Your task to perform on an android device: turn on notifications settings in the gmail app Image 0: 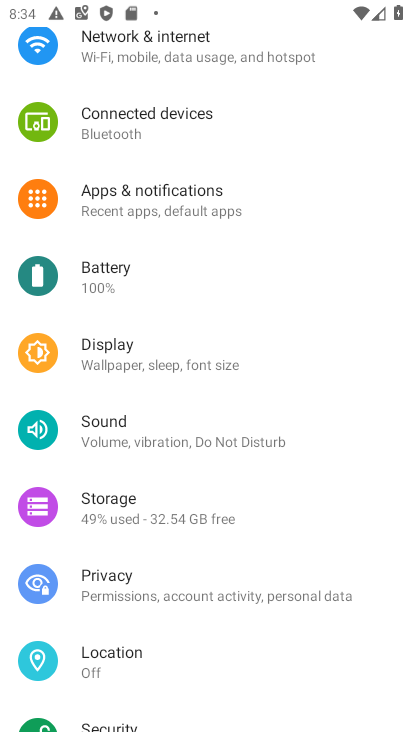
Step 0: drag from (173, 172) to (220, 498)
Your task to perform on an android device: turn on notifications settings in the gmail app Image 1: 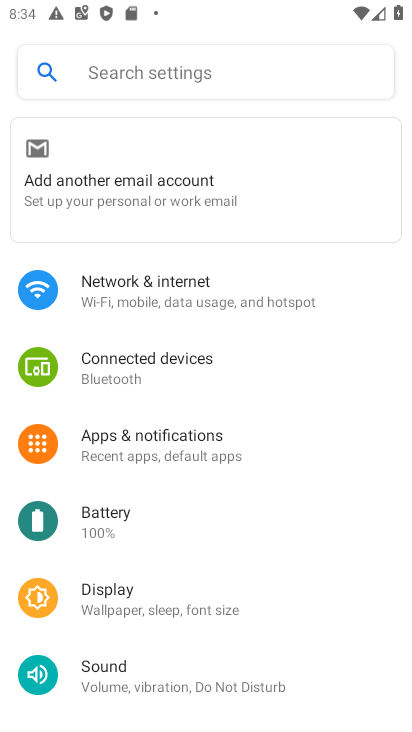
Step 1: press home button
Your task to perform on an android device: turn on notifications settings in the gmail app Image 2: 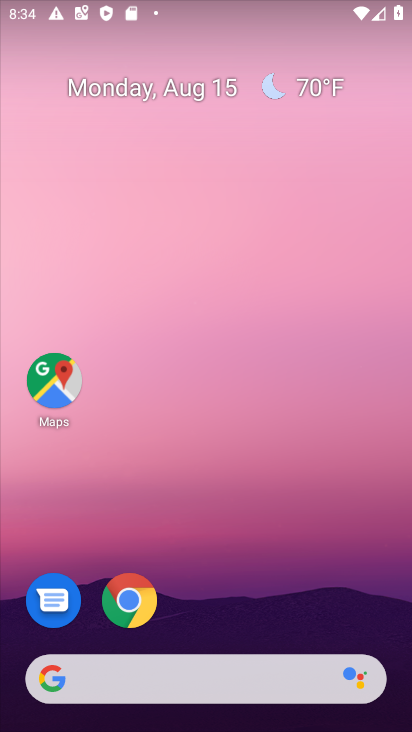
Step 2: drag from (236, 621) to (244, 76)
Your task to perform on an android device: turn on notifications settings in the gmail app Image 3: 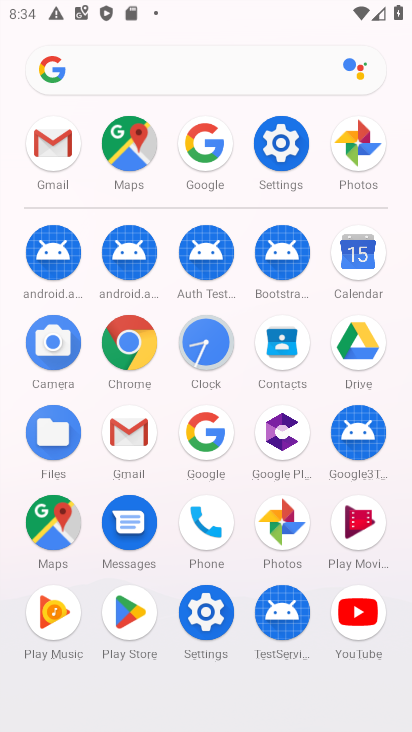
Step 3: click (120, 433)
Your task to perform on an android device: turn on notifications settings in the gmail app Image 4: 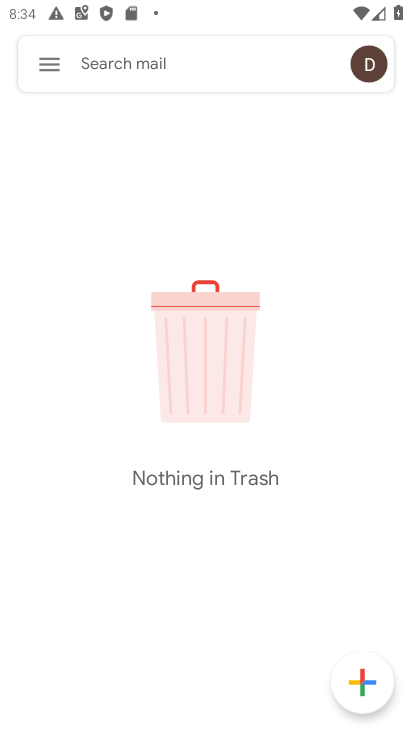
Step 4: click (51, 65)
Your task to perform on an android device: turn on notifications settings in the gmail app Image 5: 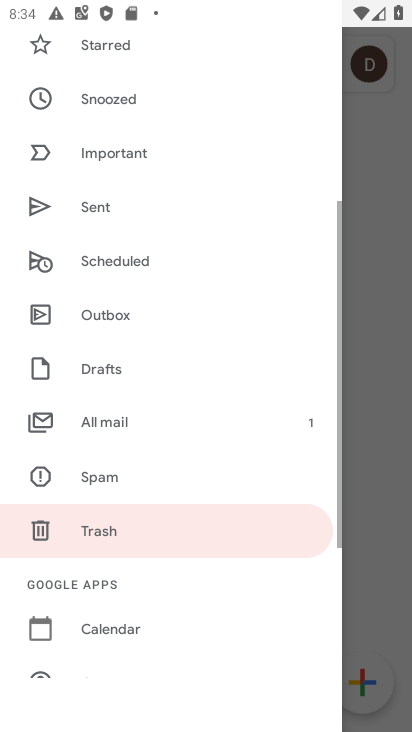
Step 5: drag from (97, 644) to (111, 260)
Your task to perform on an android device: turn on notifications settings in the gmail app Image 6: 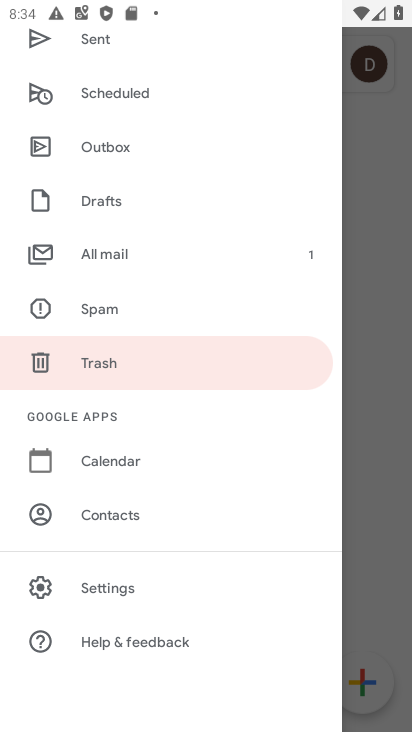
Step 6: click (113, 581)
Your task to perform on an android device: turn on notifications settings in the gmail app Image 7: 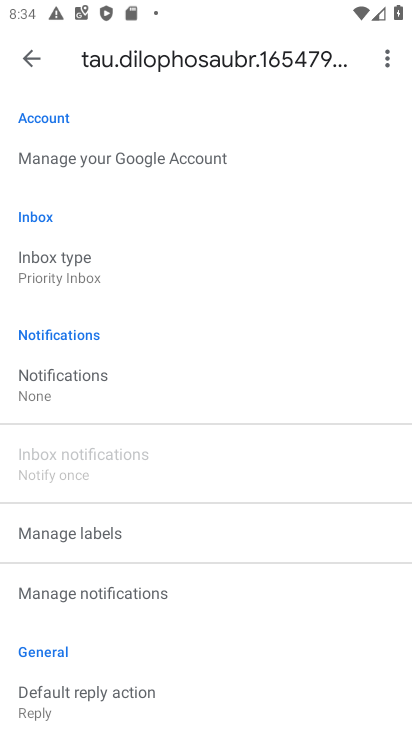
Step 7: click (71, 370)
Your task to perform on an android device: turn on notifications settings in the gmail app Image 8: 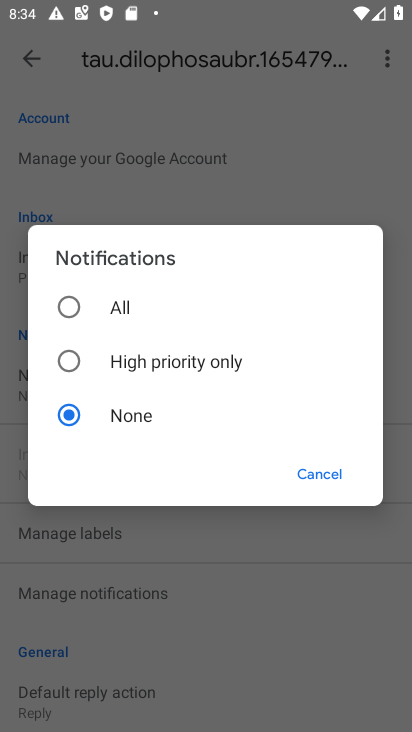
Step 8: click (60, 307)
Your task to perform on an android device: turn on notifications settings in the gmail app Image 9: 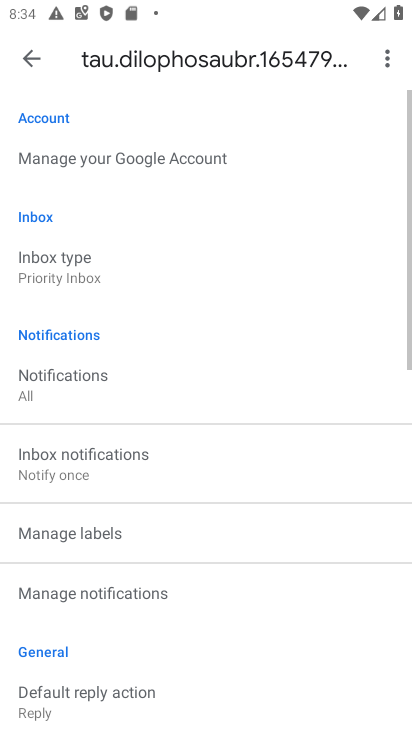
Step 9: task complete